Your task to perform on an android device: Show me productivity apps on the Play Store Image 0: 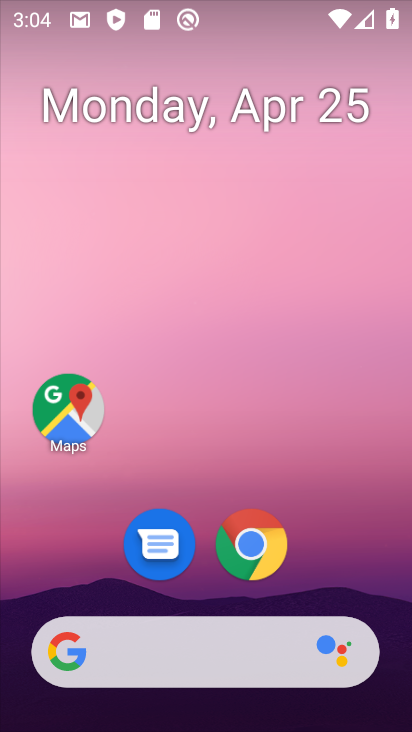
Step 0: drag from (223, 458) to (219, 4)
Your task to perform on an android device: Show me productivity apps on the Play Store Image 1: 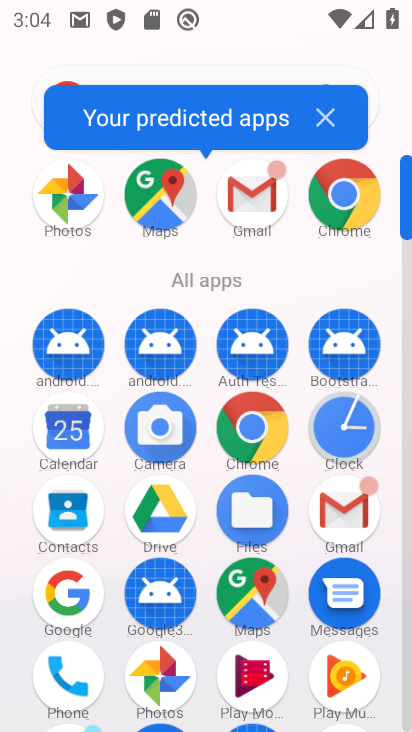
Step 1: drag from (97, 291) to (191, 25)
Your task to perform on an android device: Show me productivity apps on the Play Store Image 2: 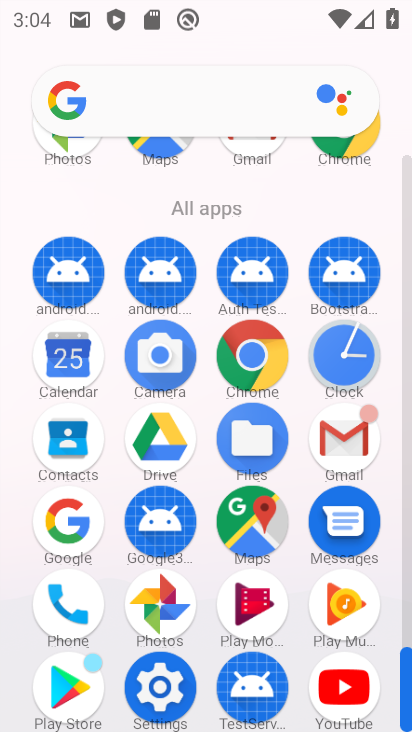
Step 2: click (70, 685)
Your task to perform on an android device: Show me productivity apps on the Play Store Image 3: 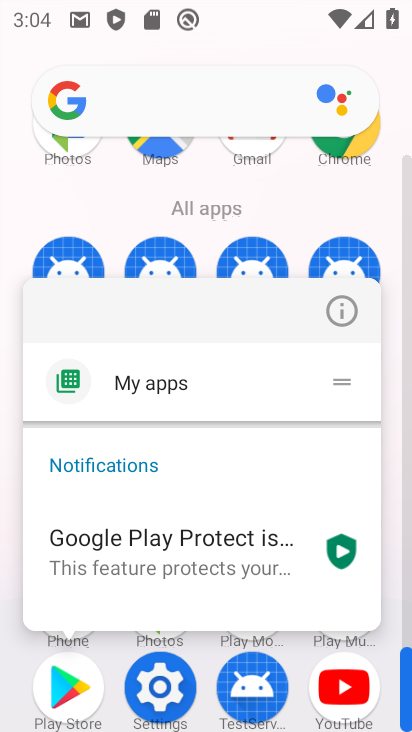
Step 3: click (70, 685)
Your task to perform on an android device: Show me productivity apps on the Play Store Image 4: 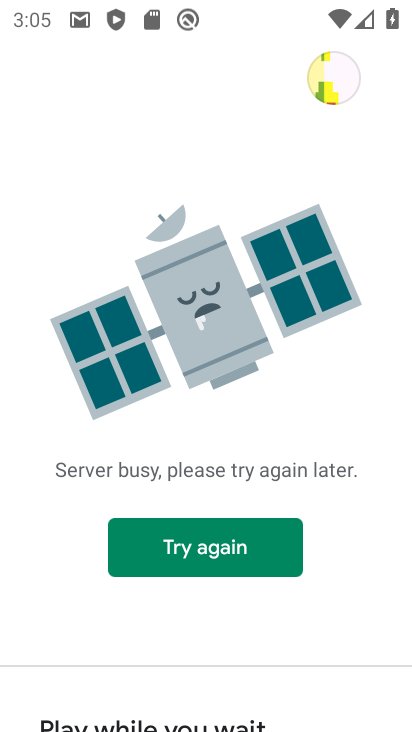
Step 4: click (208, 560)
Your task to perform on an android device: Show me productivity apps on the Play Store Image 5: 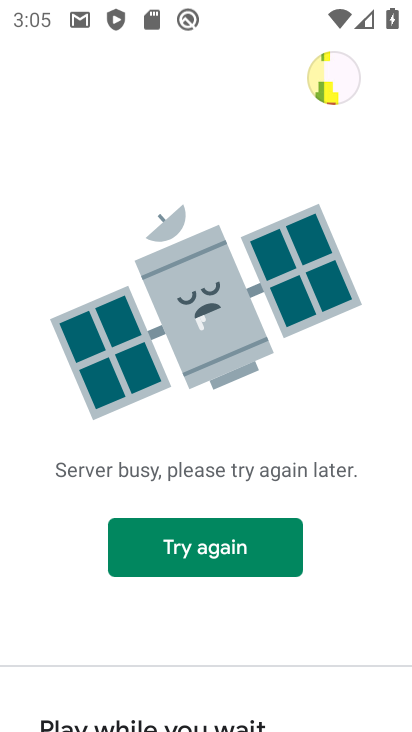
Step 5: click (208, 560)
Your task to perform on an android device: Show me productivity apps on the Play Store Image 6: 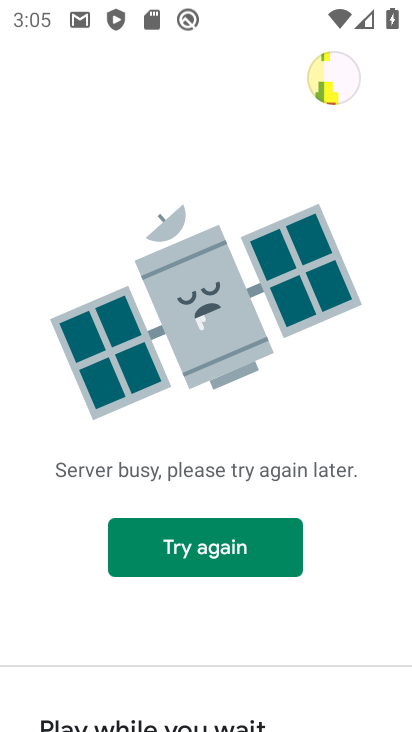
Step 6: press back button
Your task to perform on an android device: Show me productivity apps on the Play Store Image 7: 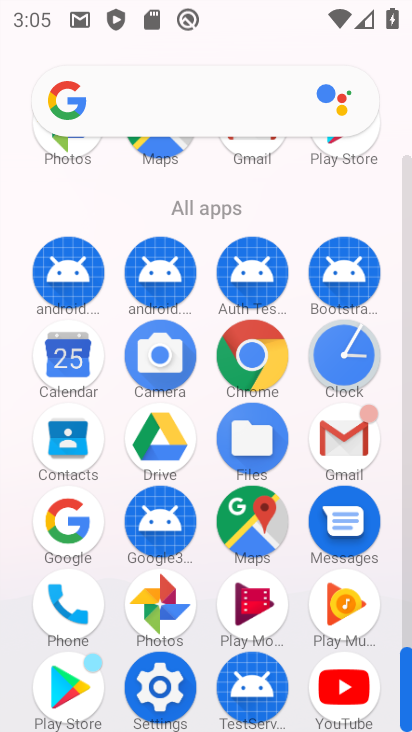
Step 7: click (75, 688)
Your task to perform on an android device: Show me productivity apps on the Play Store Image 8: 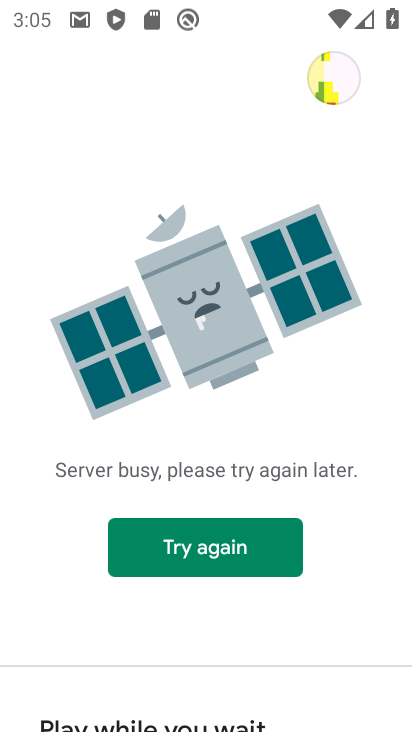
Step 8: click (221, 551)
Your task to perform on an android device: Show me productivity apps on the Play Store Image 9: 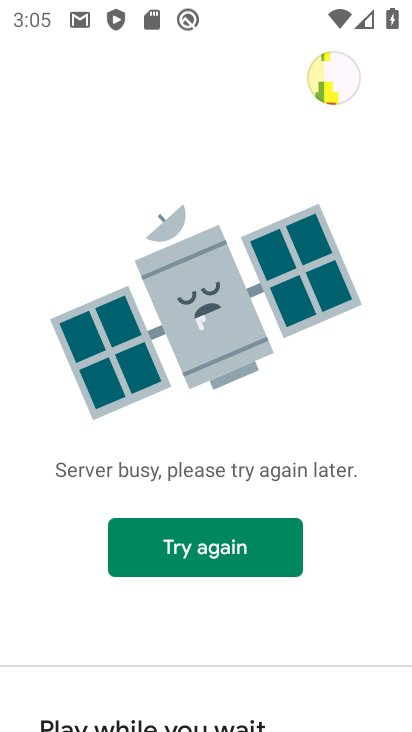
Step 9: task complete